Your task to perform on an android device: Open settings on Google Maps Image 0: 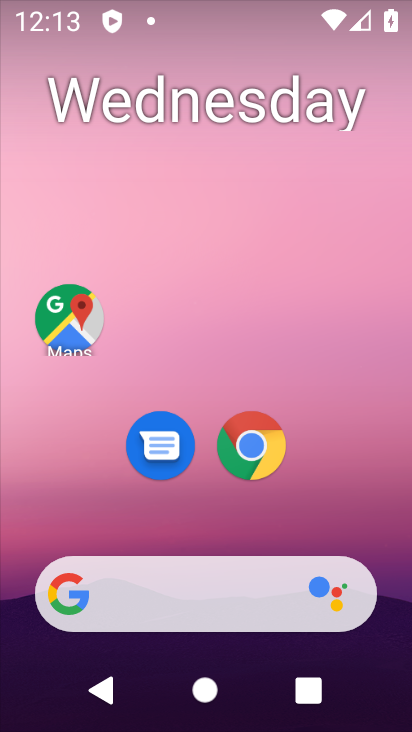
Step 0: click (73, 316)
Your task to perform on an android device: Open settings on Google Maps Image 1: 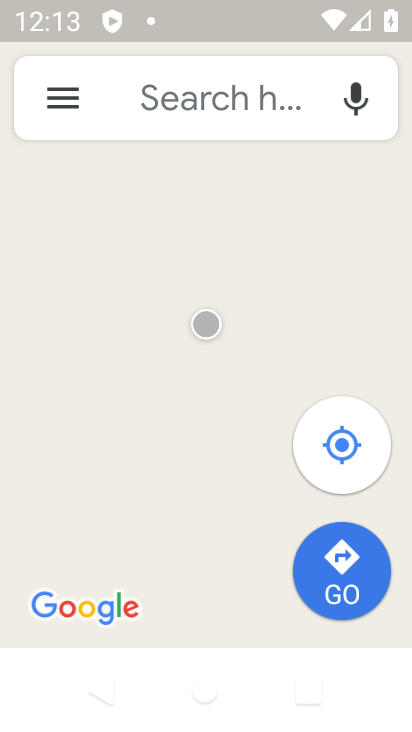
Step 1: click (68, 101)
Your task to perform on an android device: Open settings on Google Maps Image 2: 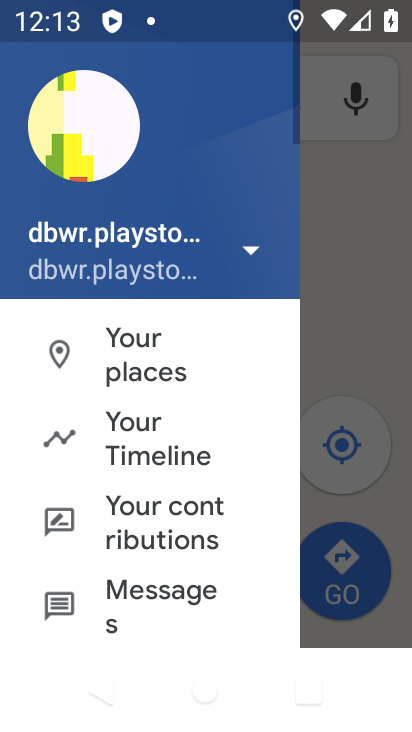
Step 2: drag from (165, 623) to (229, 404)
Your task to perform on an android device: Open settings on Google Maps Image 3: 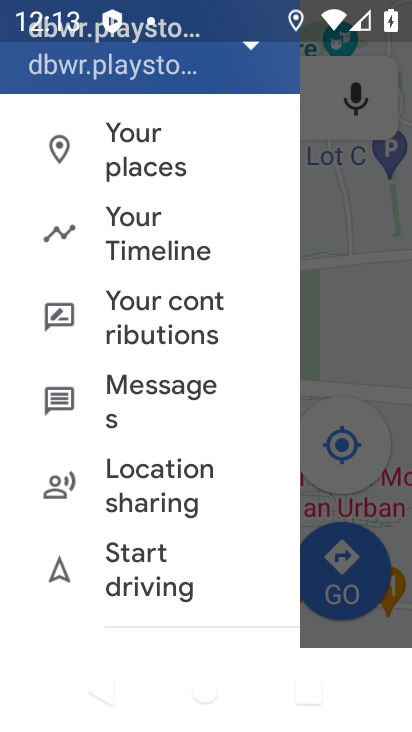
Step 3: drag from (169, 548) to (219, 331)
Your task to perform on an android device: Open settings on Google Maps Image 4: 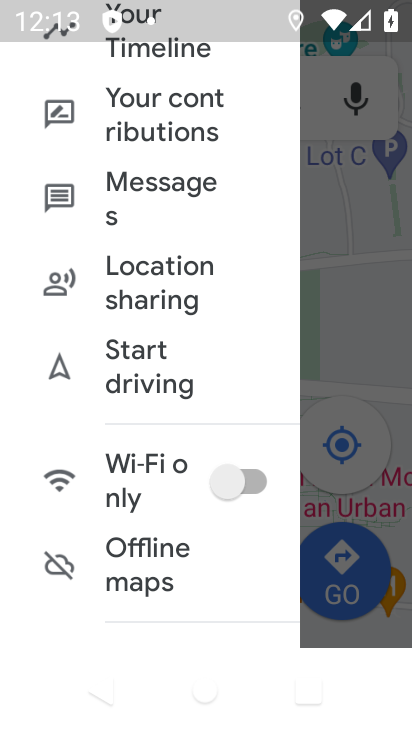
Step 4: drag from (222, 429) to (298, 75)
Your task to perform on an android device: Open settings on Google Maps Image 5: 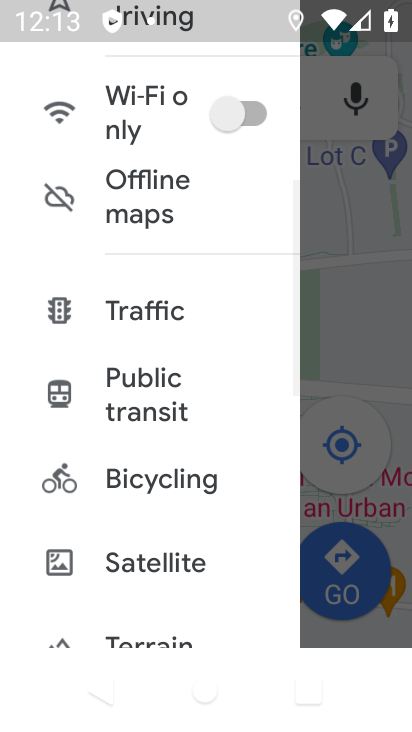
Step 5: drag from (180, 552) to (274, 146)
Your task to perform on an android device: Open settings on Google Maps Image 6: 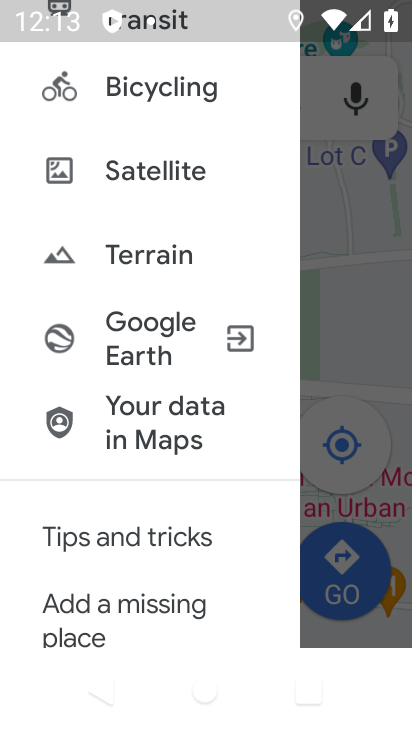
Step 6: drag from (179, 572) to (221, 195)
Your task to perform on an android device: Open settings on Google Maps Image 7: 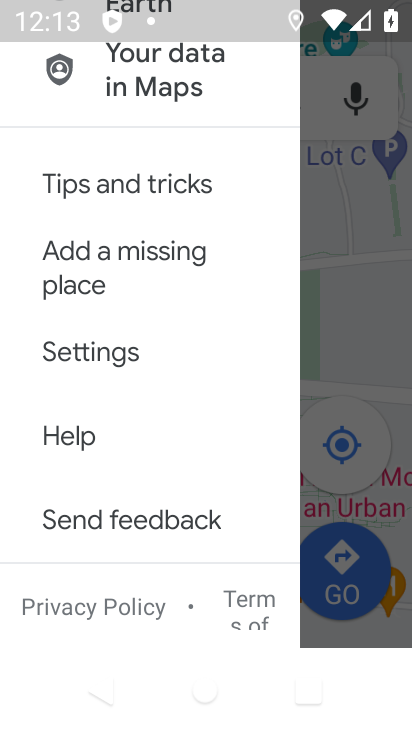
Step 7: click (101, 358)
Your task to perform on an android device: Open settings on Google Maps Image 8: 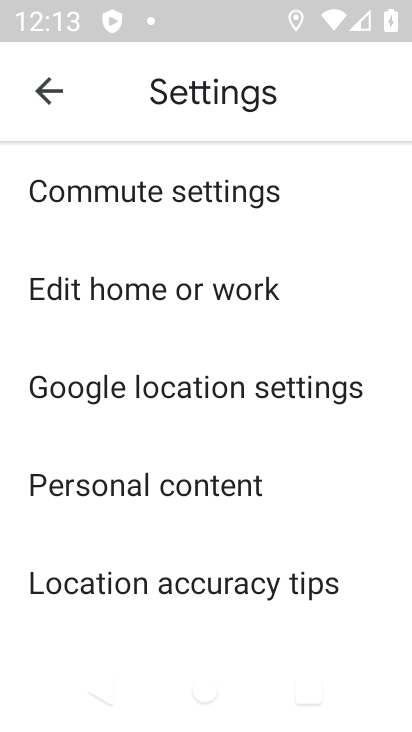
Step 8: task complete